Your task to perform on an android device: Open Chrome and go to the settings page Image 0: 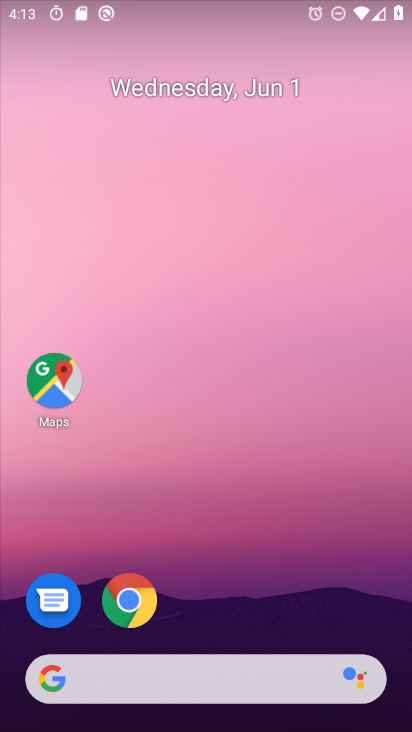
Step 0: click (129, 607)
Your task to perform on an android device: Open Chrome and go to the settings page Image 1: 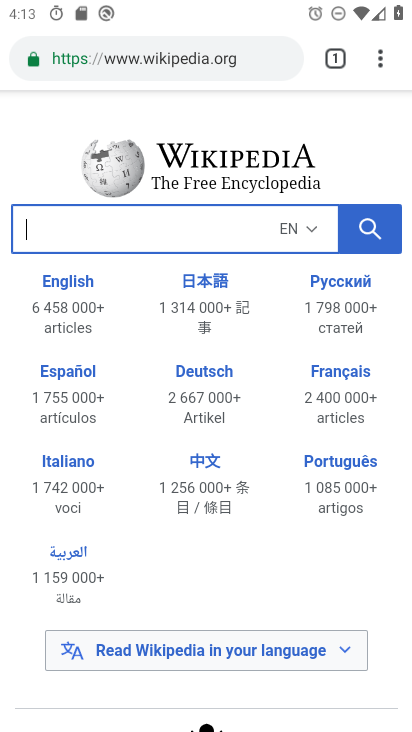
Step 1: click (375, 59)
Your task to perform on an android device: Open Chrome and go to the settings page Image 2: 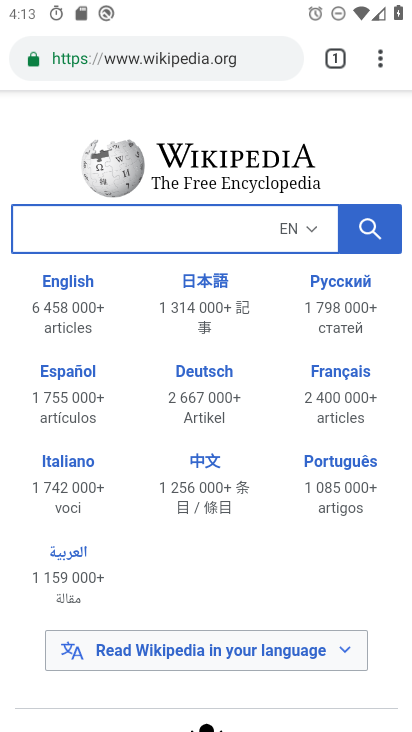
Step 2: click (381, 60)
Your task to perform on an android device: Open Chrome and go to the settings page Image 3: 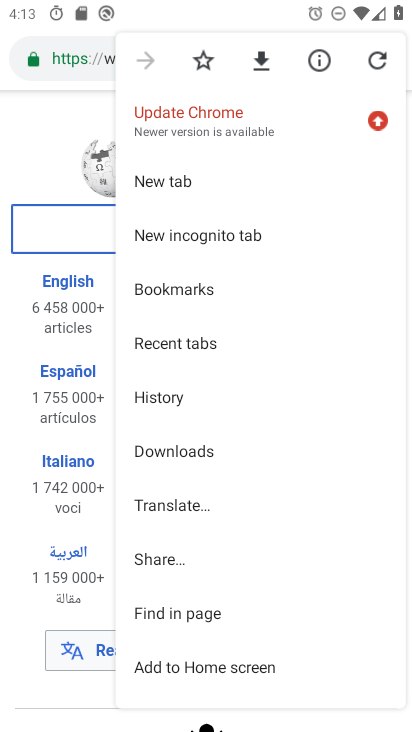
Step 3: drag from (191, 633) to (196, 411)
Your task to perform on an android device: Open Chrome and go to the settings page Image 4: 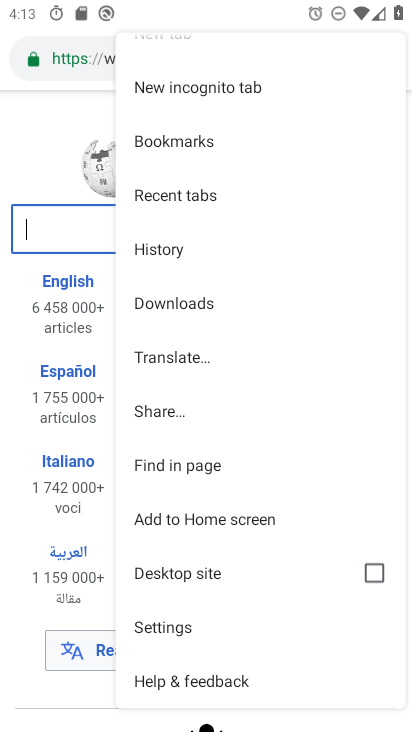
Step 4: click (156, 627)
Your task to perform on an android device: Open Chrome and go to the settings page Image 5: 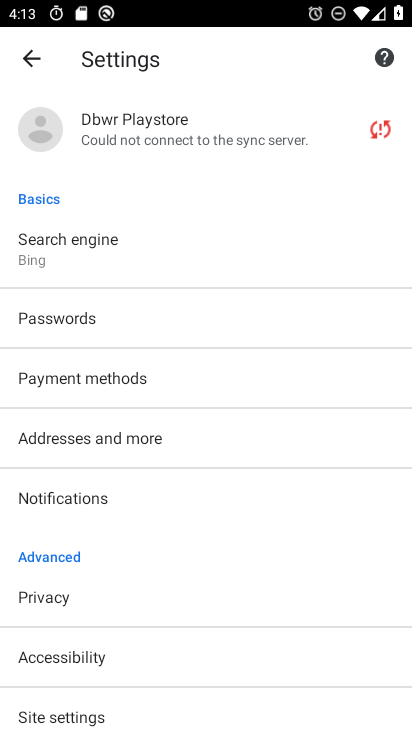
Step 5: task complete